Your task to perform on an android device: Open ESPN.com Image 0: 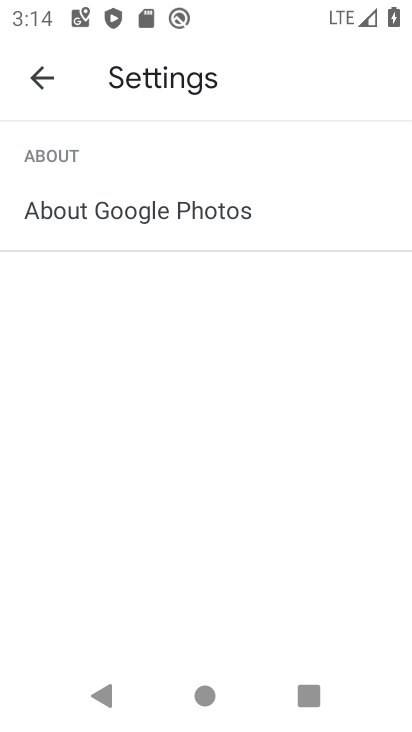
Step 0: press back button
Your task to perform on an android device: Open ESPN.com Image 1: 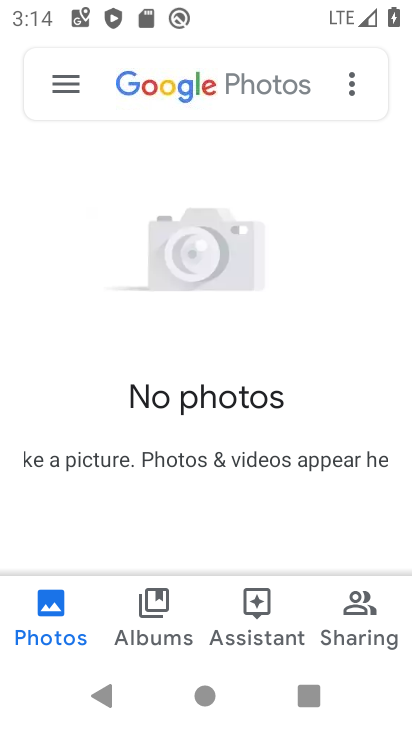
Step 1: press back button
Your task to perform on an android device: Open ESPN.com Image 2: 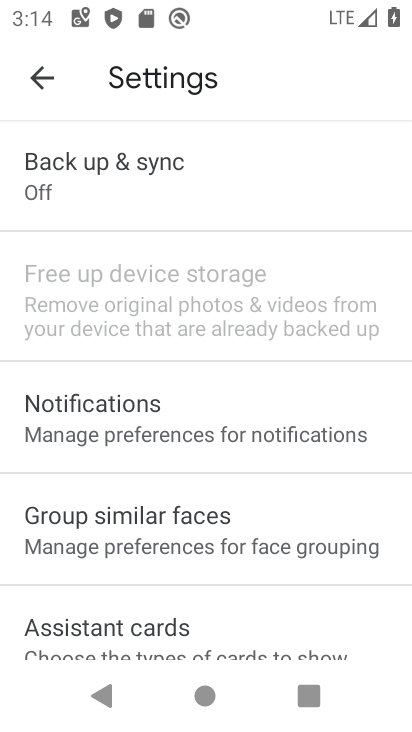
Step 2: press back button
Your task to perform on an android device: Open ESPN.com Image 3: 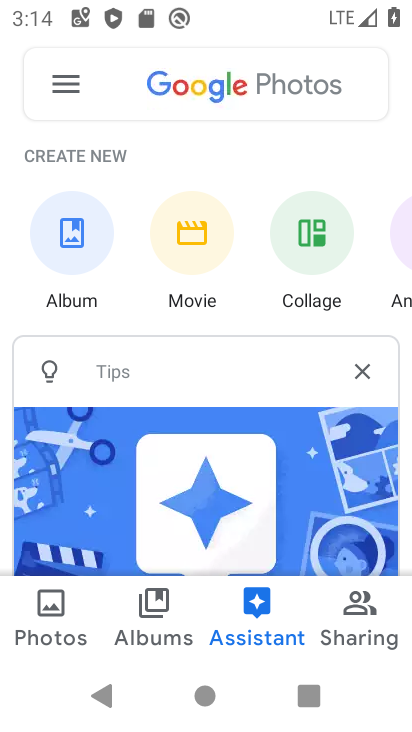
Step 3: press back button
Your task to perform on an android device: Open ESPN.com Image 4: 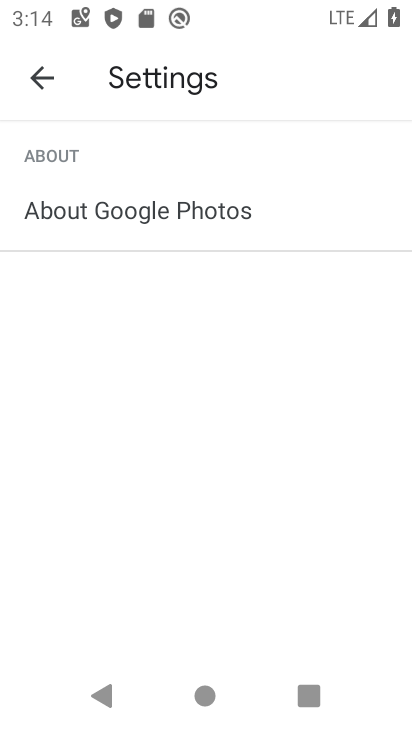
Step 4: press back button
Your task to perform on an android device: Open ESPN.com Image 5: 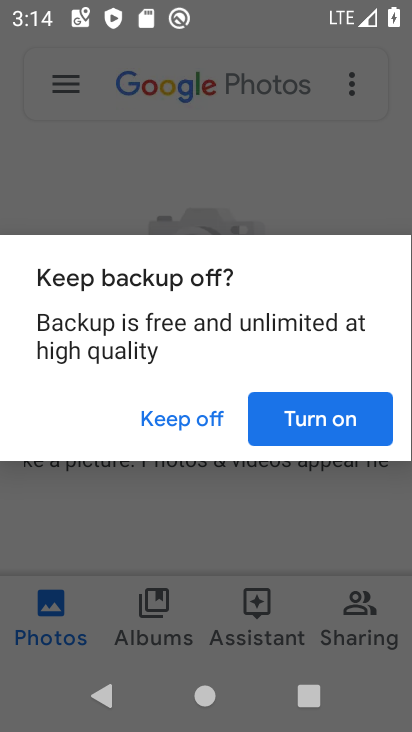
Step 5: press back button
Your task to perform on an android device: Open ESPN.com Image 6: 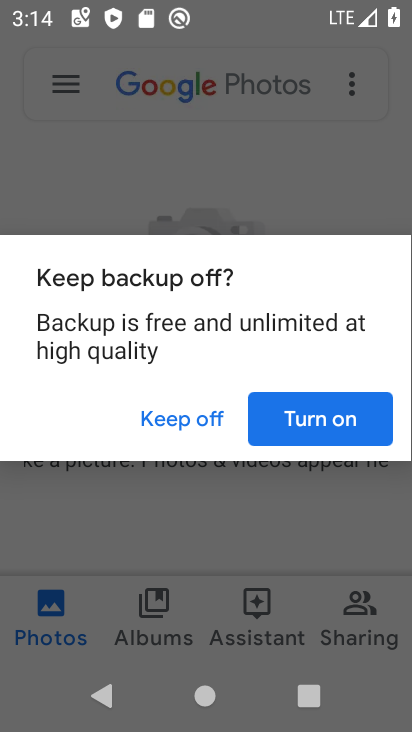
Step 6: press home button
Your task to perform on an android device: Open ESPN.com Image 7: 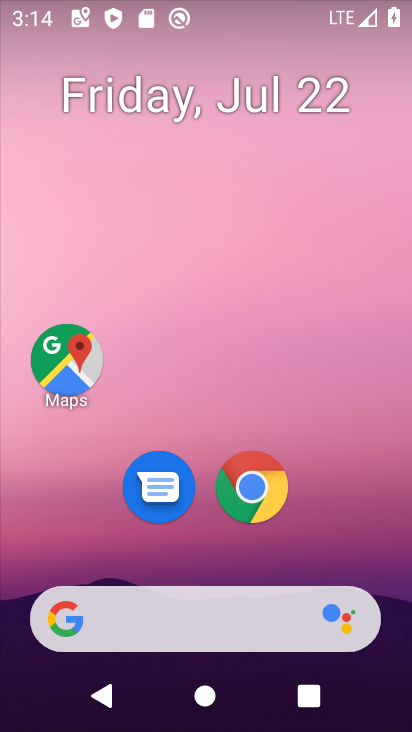
Step 7: click (250, 471)
Your task to perform on an android device: Open ESPN.com Image 8: 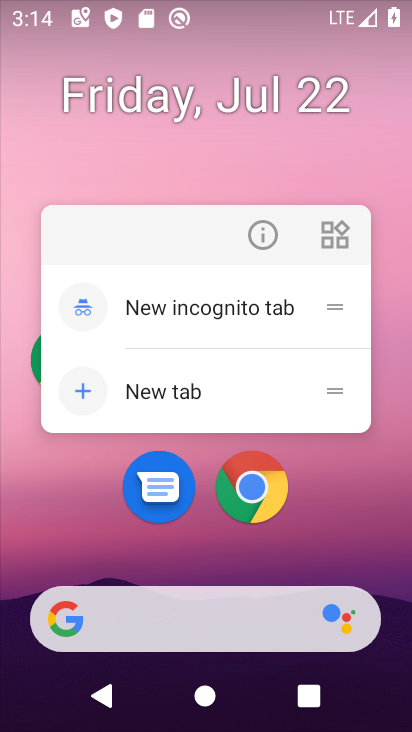
Step 8: click (261, 484)
Your task to perform on an android device: Open ESPN.com Image 9: 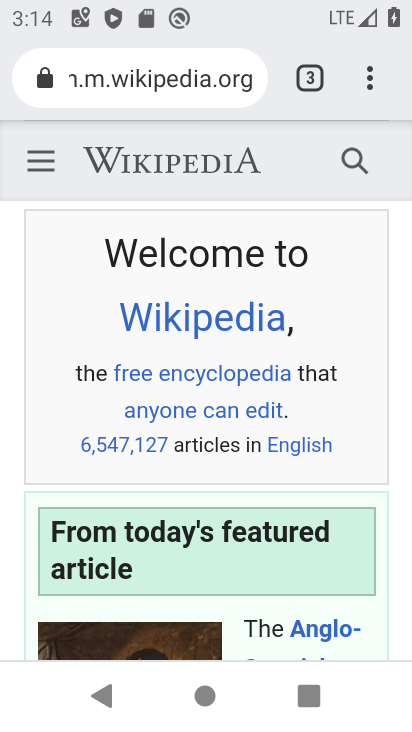
Step 9: click (311, 72)
Your task to perform on an android device: Open ESPN.com Image 10: 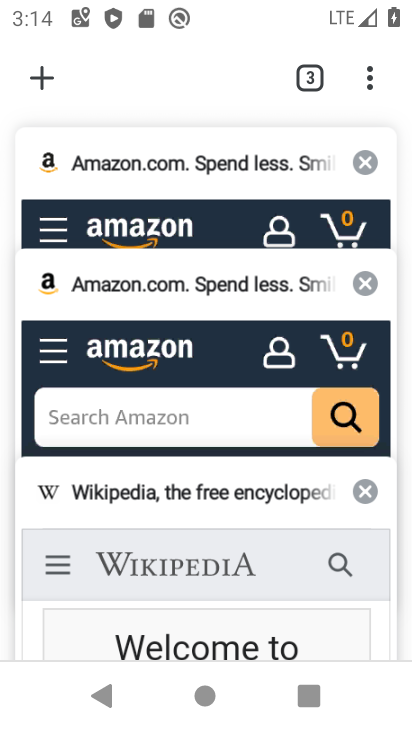
Step 10: click (47, 78)
Your task to perform on an android device: Open ESPN.com Image 11: 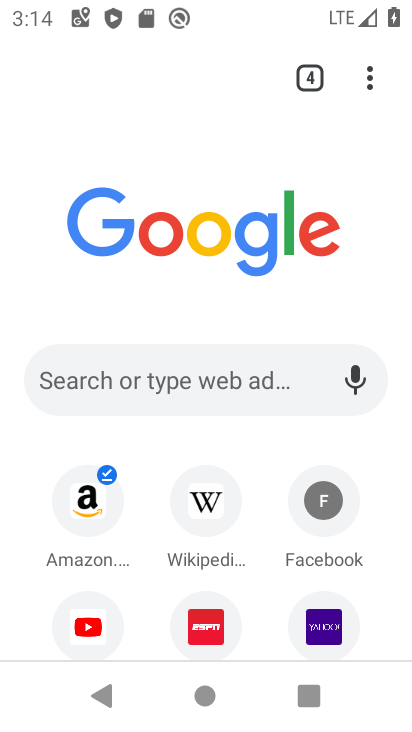
Step 11: click (198, 619)
Your task to perform on an android device: Open ESPN.com Image 12: 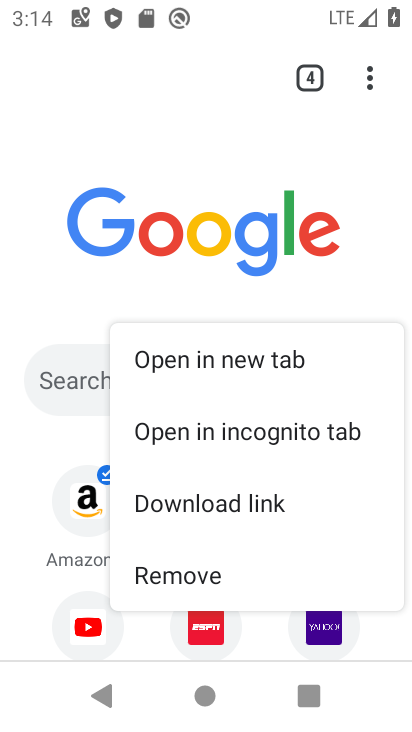
Step 12: click (191, 616)
Your task to perform on an android device: Open ESPN.com Image 13: 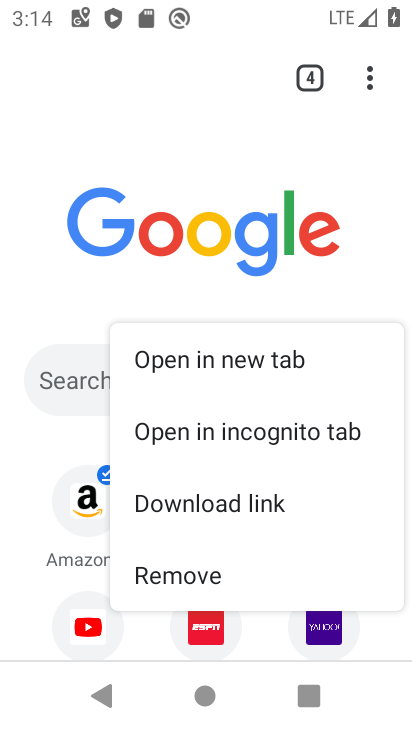
Step 13: click (204, 633)
Your task to perform on an android device: Open ESPN.com Image 14: 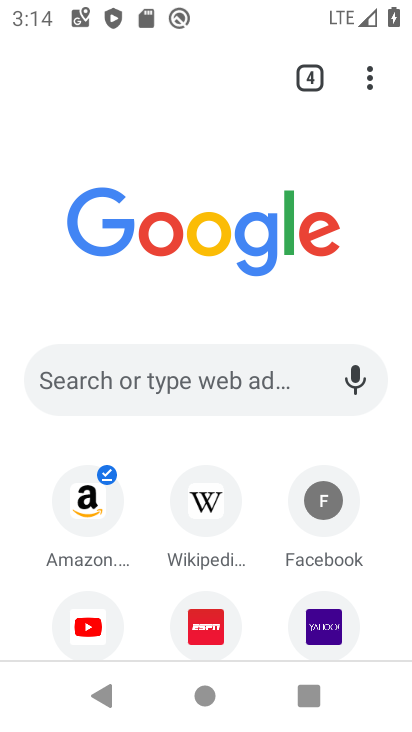
Step 14: click (210, 627)
Your task to perform on an android device: Open ESPN.com Image 15: 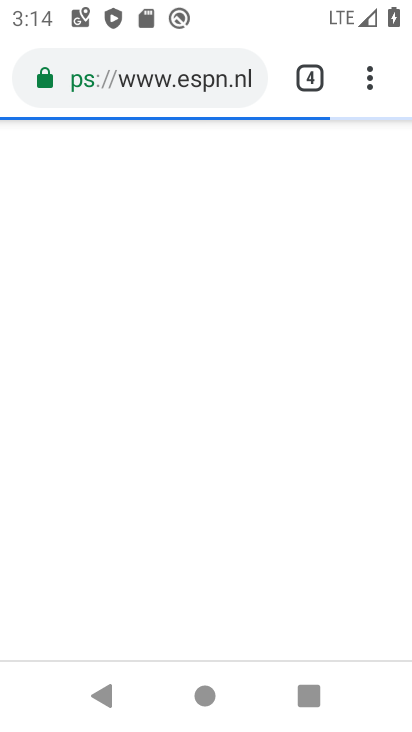
Step 15: task complete